Your task to perform on an android device: Open Google Chrome and open the bookmarks view Image 0: 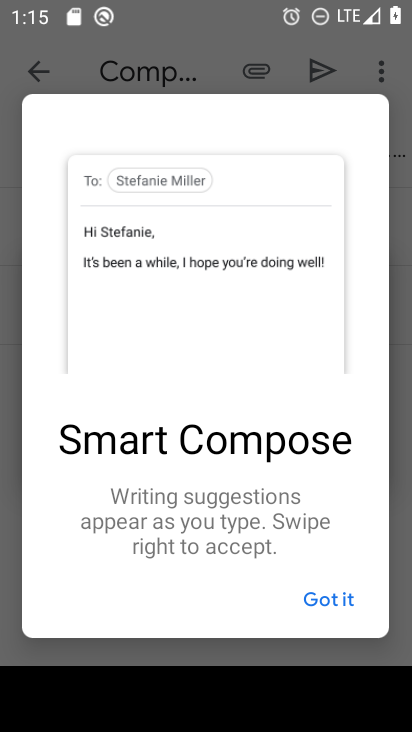
Step 0: press home button
Your task to perform on an android device: Open Google Chrome and open the bookmarks view Image 1: 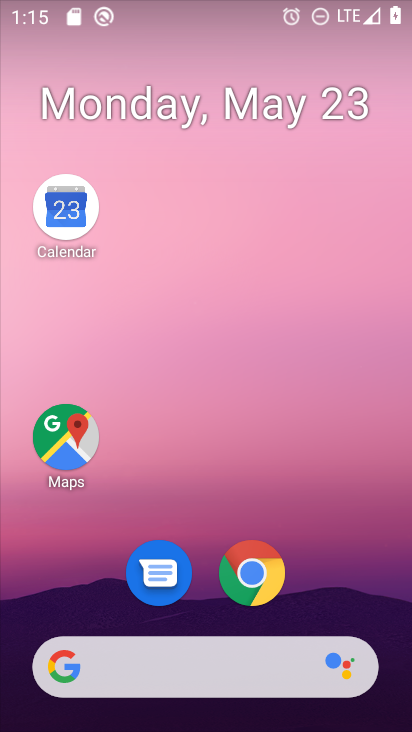
Step 1: click (267, 575)
Your task to perform on an android device: Open Google Chrome and open the bookmarks view Image 2: 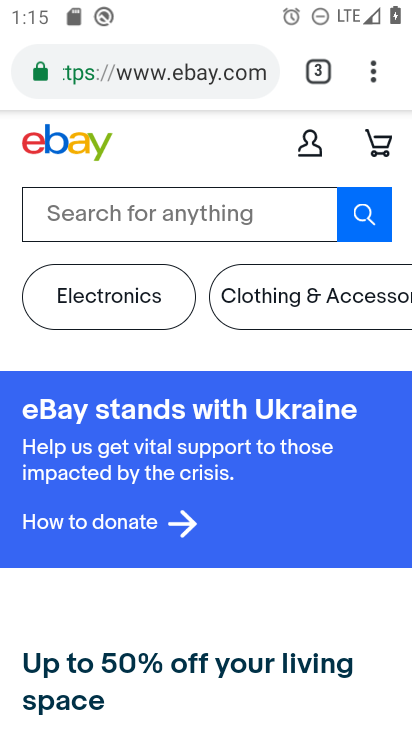
Step 2: click (379, 68)
Your task to perform on an android device: Open Google Chrome and open the bookmarks view Image 3: 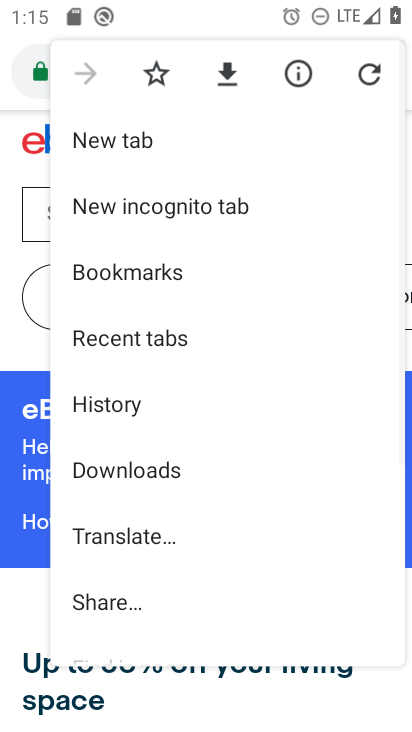
Step 3: click (172, 273)
Your task to perform on an android device: Open Google Chrome and open the bookmarks view Image 4: 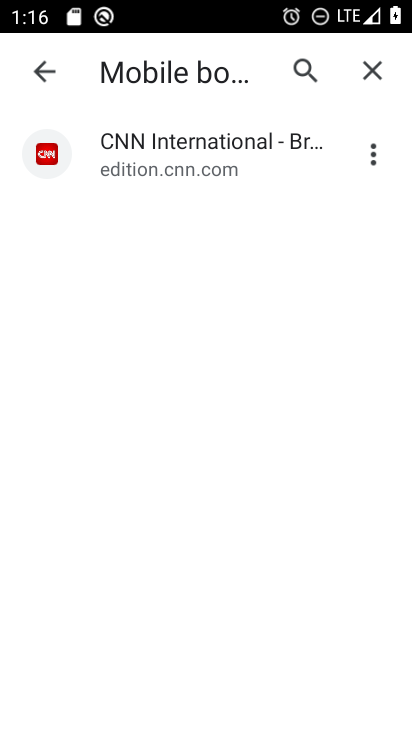
Step 4: task complete